Your task to perform on an android device: Go to Yahoo.com Image 0: 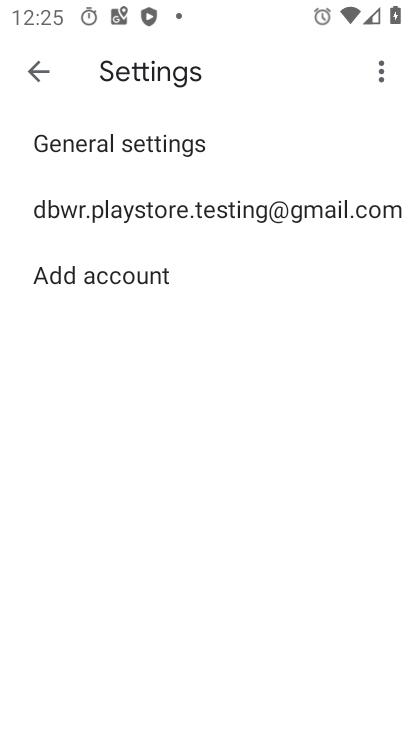
Step 0: press home button
Your task to perform on an android device: Go to Yahoo.com Image 1: 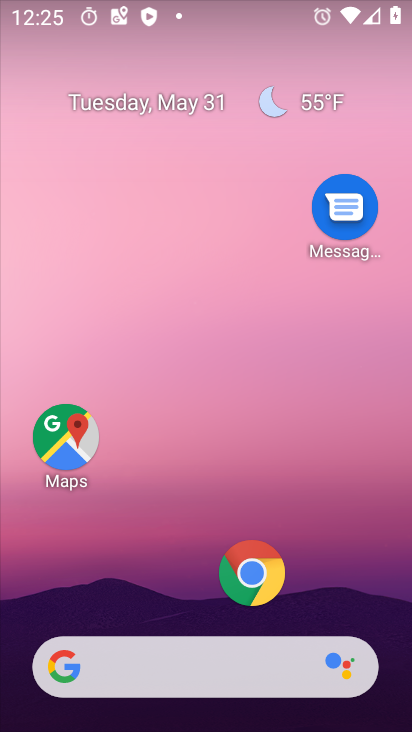
Step 1: click (251, 574)
Your task to perform on an android device: Go to Yahoo.com Image 2: 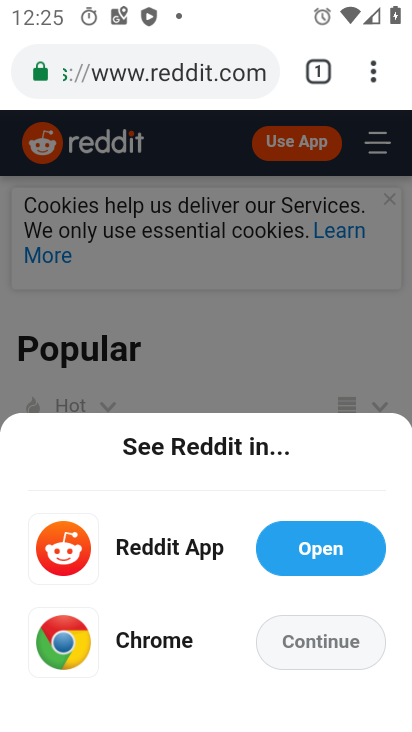
Step 2: click (183, 75)
Your task to perform on an android device: Go to Yahoo.com Image 3: 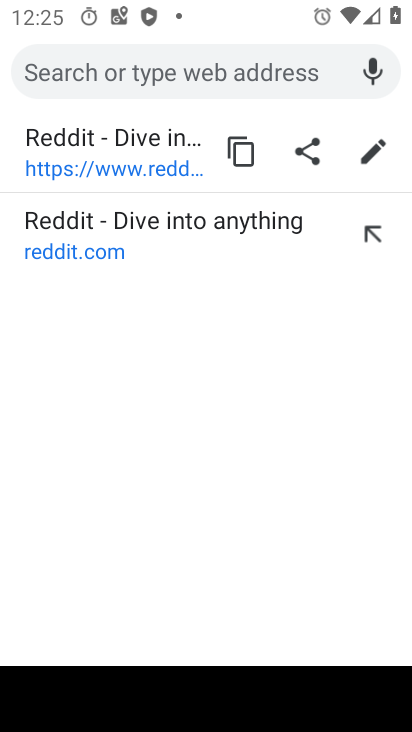
Step 3: type "yahoo.com"
Your task to perform on an android device: Go to Yahoo.com Image 4: 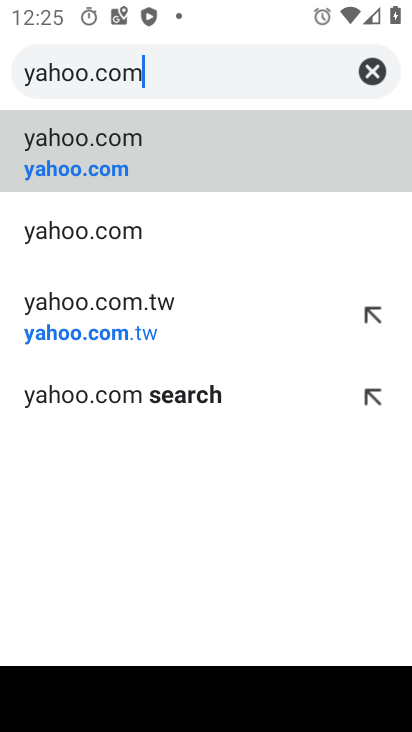
Step 4: click (99, 158)
Your task to perform on an android device: Go to Yahoo.com Image 5: 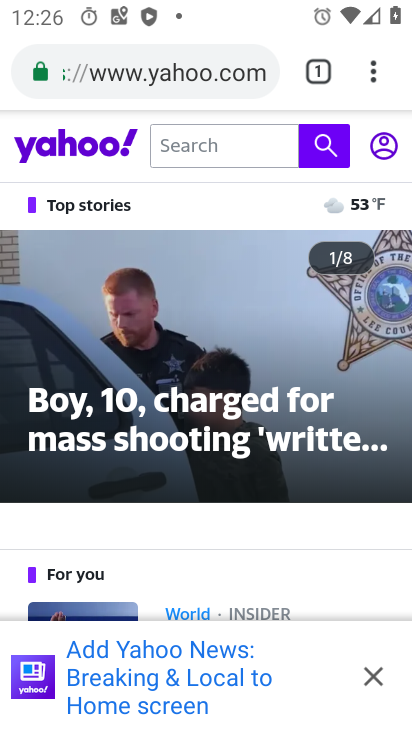
Step 5: task complete